Your task to perform on an android device: Open wifi settings Image 0: 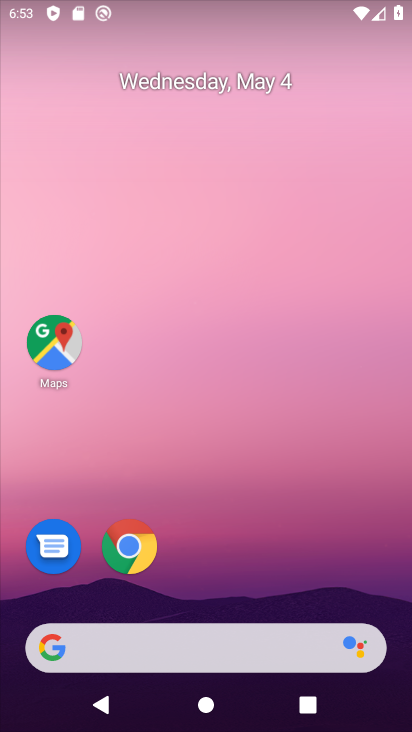
Step 0: drag from (257, 570) to (254, 368)
Your task to perform on an android device: Open wifi settings Image 1: 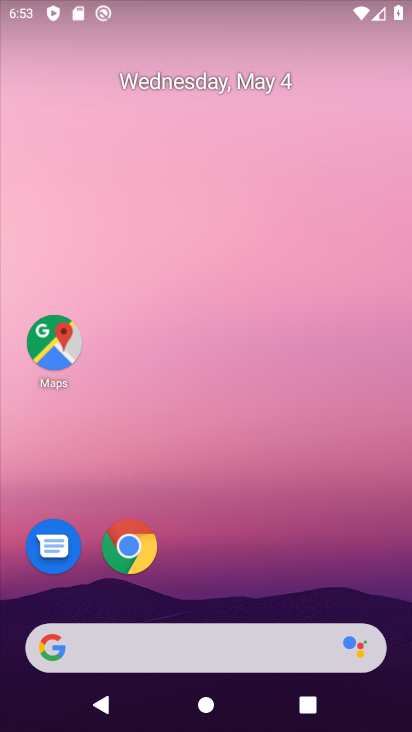
Step 1: drag from (265, 532) to (267, 38)
Your task to perform on an android device: Open wifi settings Image 2: 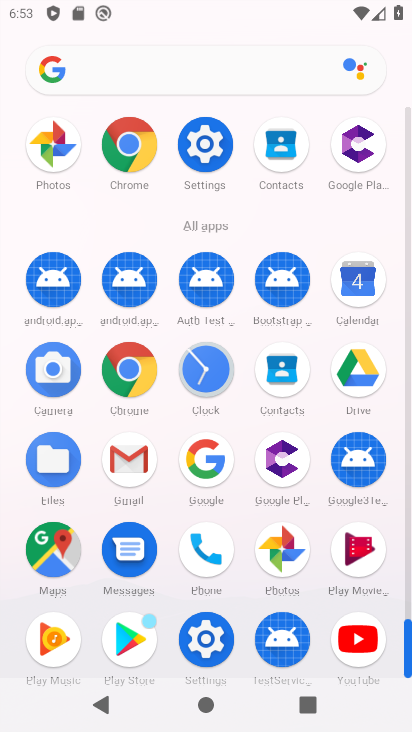
Step 2: click (221, 134)
Your task to perform on an android device: Open wifi settings Image 3: 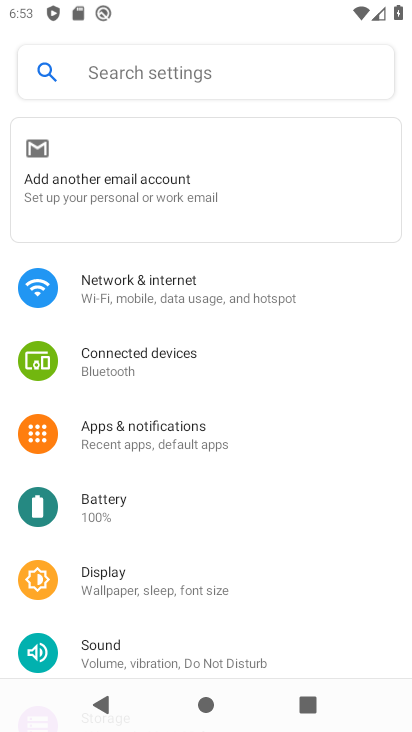
Step 3: click (109, 273)
Your task to perform on an android device: Open wifi settings Image 4: 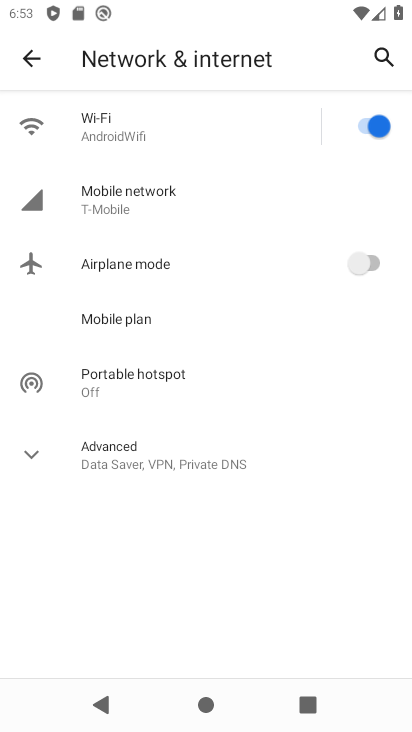
Step 4: click (179, 129)
Your task to perform on an android device: Open wifi settings Image 5: 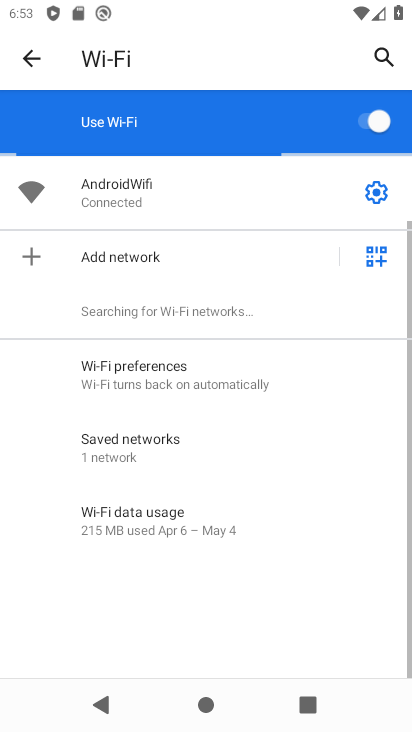
Step 5: task complete